Your task to perform on an android device: Open internet settings Image 0: 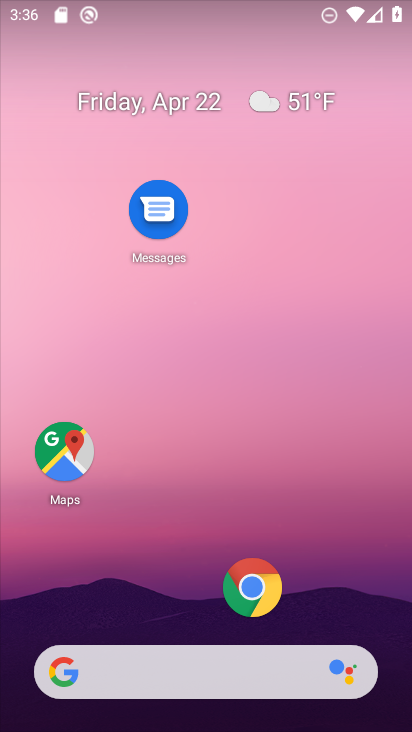
Step 0: drag from (190, 615) to (224, 206)
Your task to perform on an android device: Open internet settings Image 1: 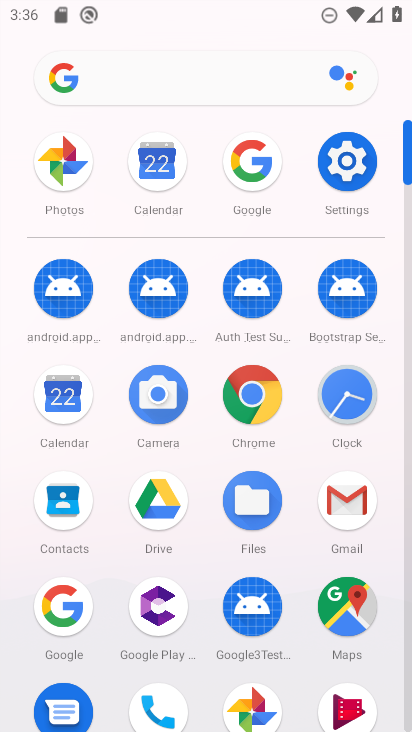
Step 1: click (326, 176)
Your task to perform on an android device: Open internet settings Image 2: 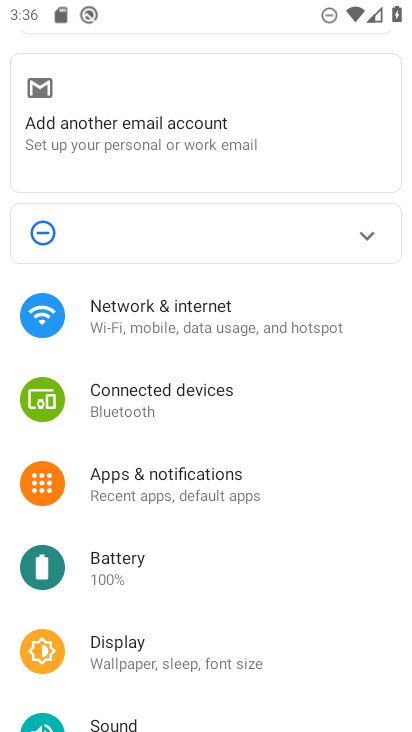
Step 2: click (155, 296)
Your task to perform on an android device: Open internet settings Image 3: 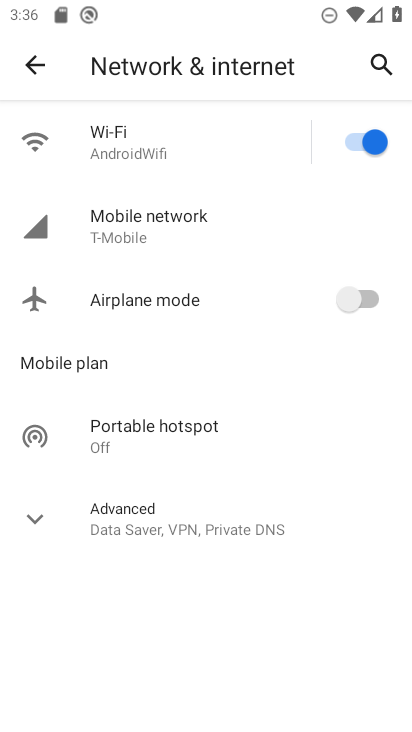
Step 3: task complete